Your task to perform on an android device: set the timer Image 0: 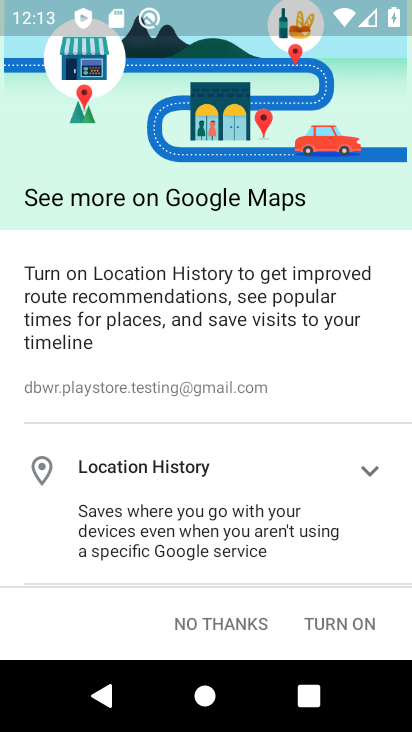
Step 0: press back button
Your task to perform on an android device: set the timer Image 1: 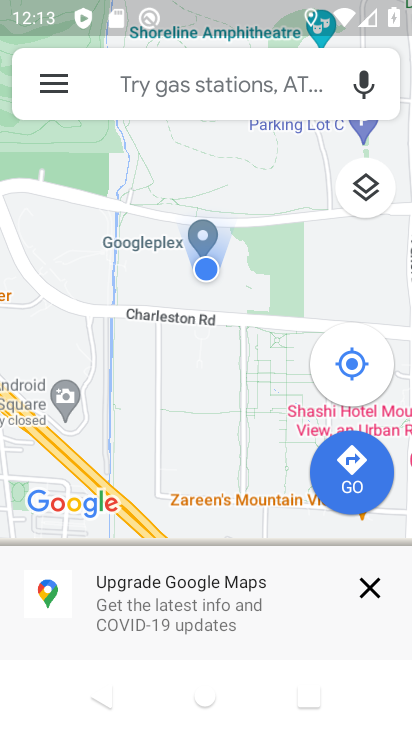
Step 1: press home button
Your task to perform on an android device: set the timer Image 2: 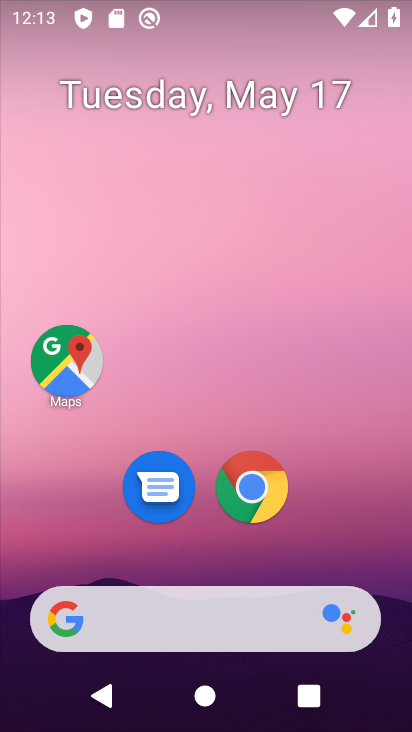
Step 2: drag from (331, 487) to (213, 22)
Your task to perform on an android device: set the timer Image 3: 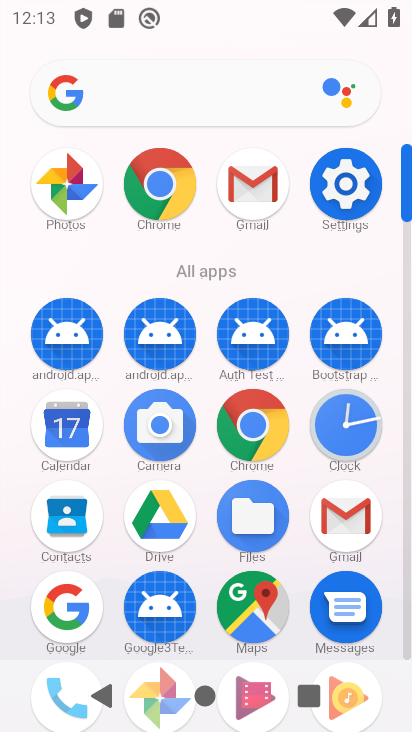
Step 3: drag from (10, 513) to (13, 210)
Your task to perform on an android device: set the timer Image 4: 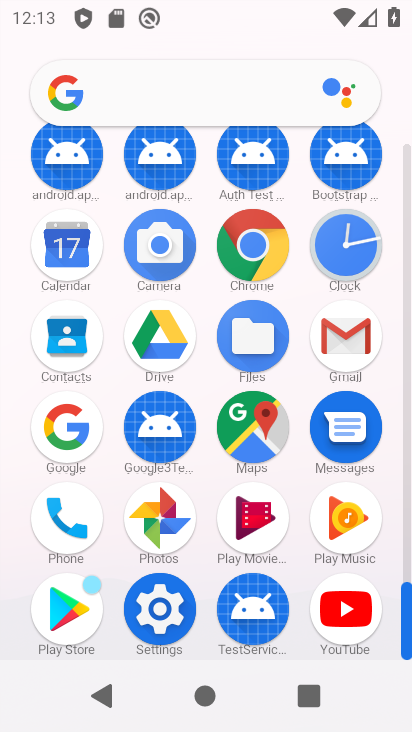
Step 4: click (343, 241)
Your task to perform on an android device: set the timer Image 5: 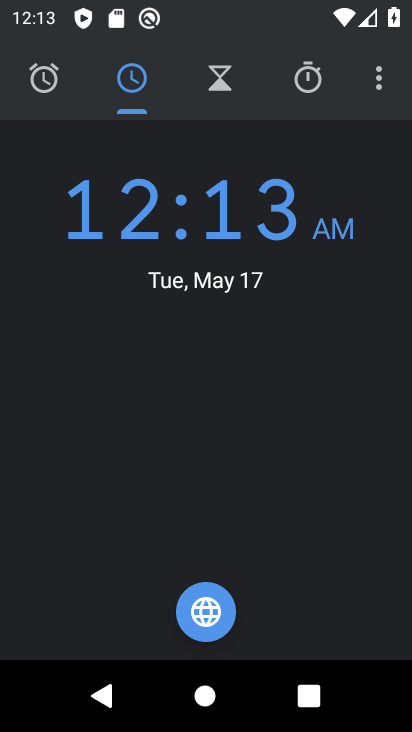
Step 5: drag from (375, 83) to (22, 195)
Your task to perform on an android device: set the timer Image 6: 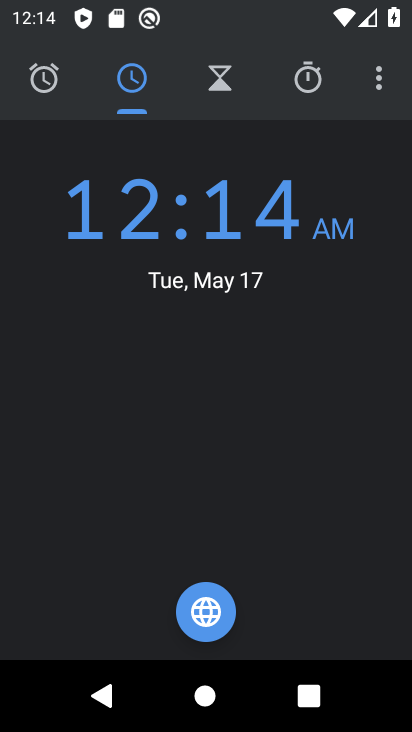
Step 6: click (214, 72)
Your task to perform on an android device: set the timer Image 7: 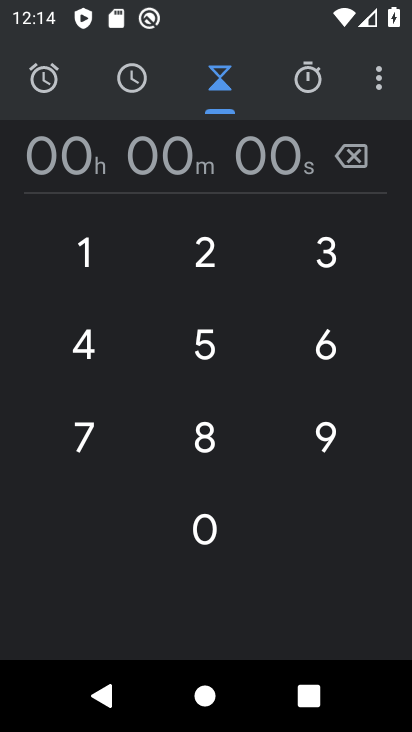
Step 7: click (204, 260)
Your task to perform on an android device: set the timer Image 8: 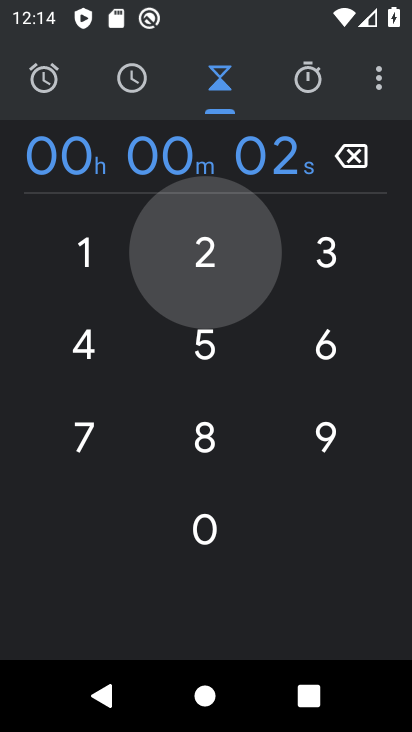
Step 8: click (87, 320)
Your task to perform on an android device: set the timer Image 9: 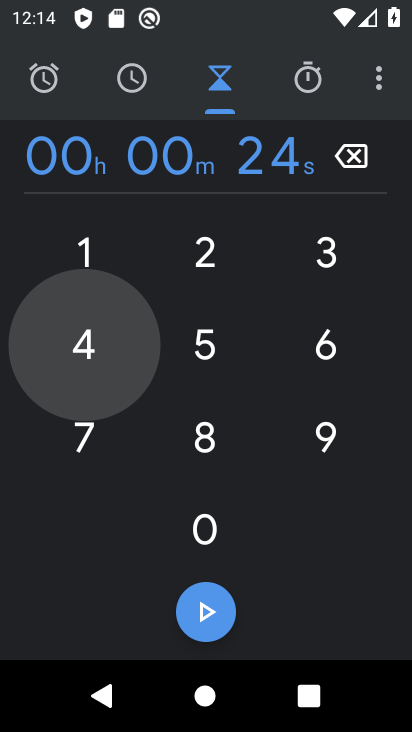
Step 9: click (238, 336)
Your task to perform on an android device: set the timer Image 10: 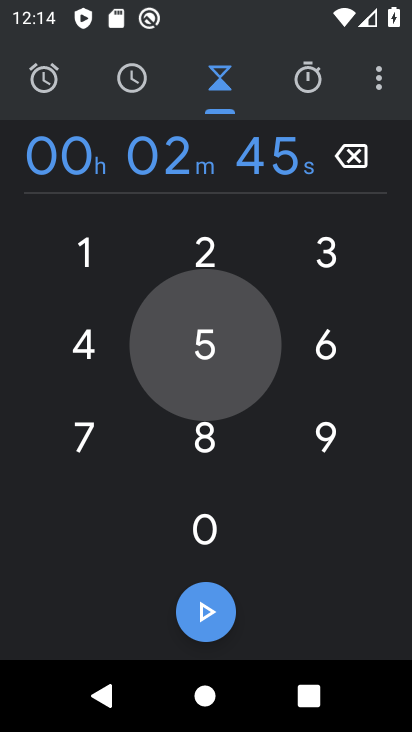
Step 10: click (305, 336)
Your task to perform on an android device: set the timer Image 11: 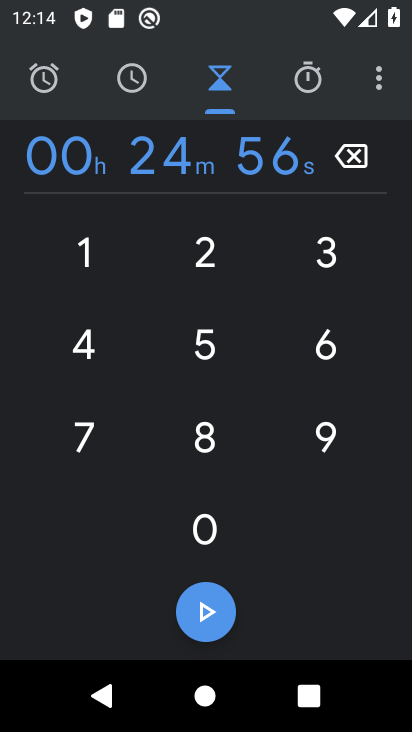
Step 11: click (203, 625)
Your task to perform on an android device: set the timer Image 12: 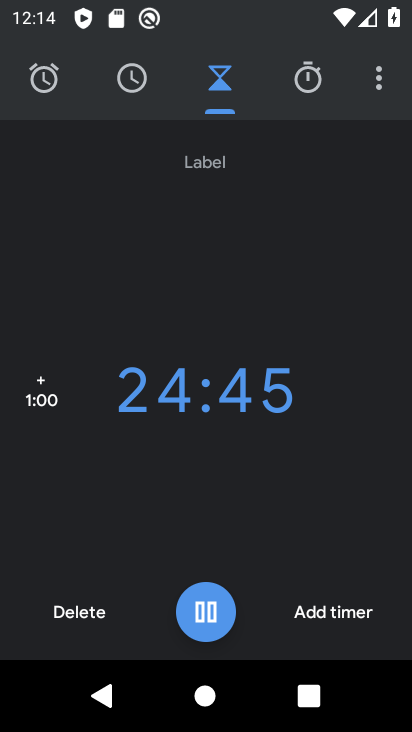
Step 12: task complete